Your task to perform on an android device: clear history in the chrome app Image 0: 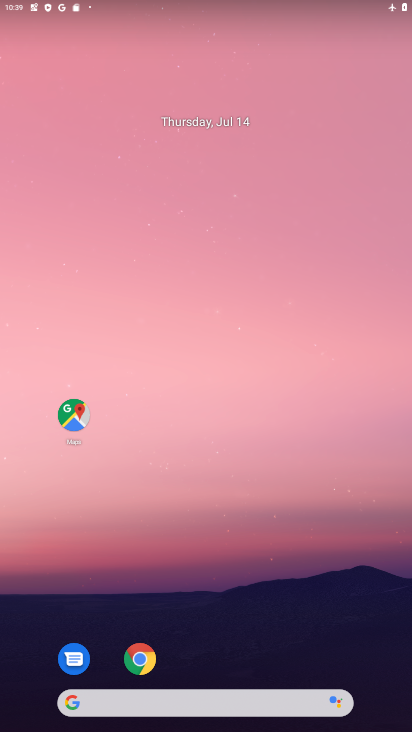
Step 0: drag from (280, 484) to (284, 125)
Your task to perform on an android device: clear history in the chrome app Image 1: 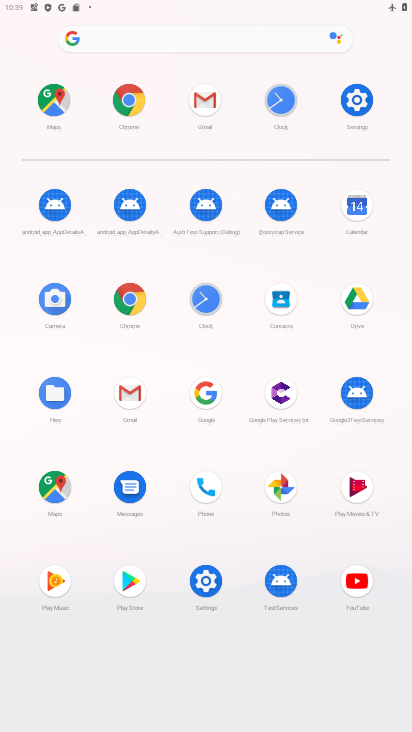
Step 1: click (127, 301)
Your task to perform on an android device: clear history in the chrome app Image 2: 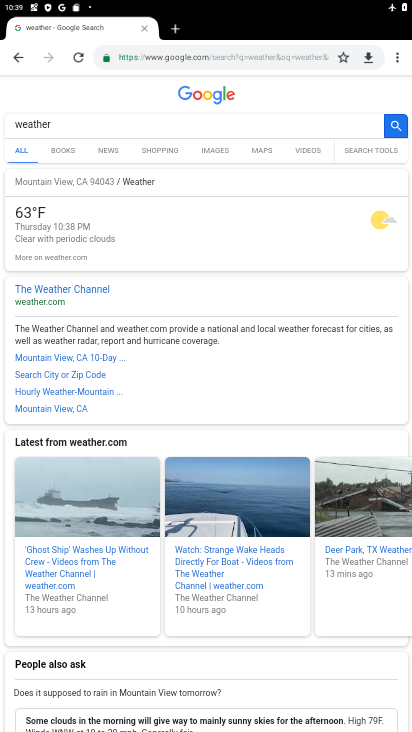
Step 2: drag from (402, 52) to (287, 178)
Your task to perform on an android device: clear history in the chrome app Image 3: 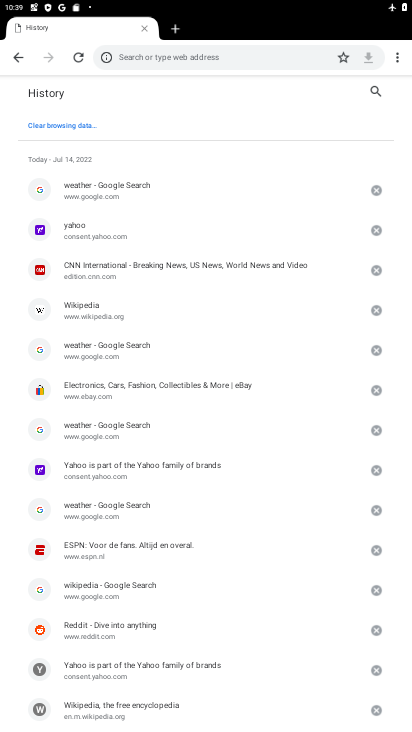
Step 3: click (81, 125)
Your task to perform on an android device: clear history in the chrome app Image 4: 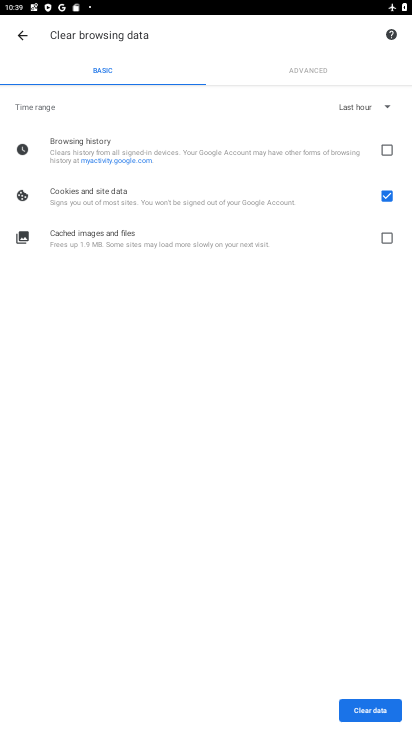
Step 4: click (394, 143)
Your task to perform on an android device: clear history in the chrome app Image 5: 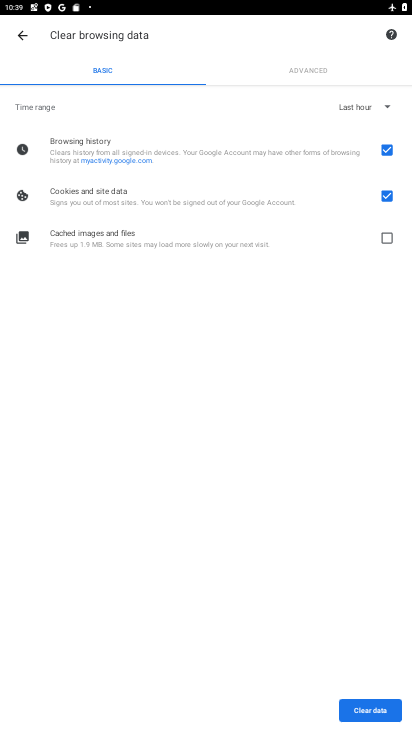
Step 5: click (384, 236)
Your task to perform on an android device: clear history in the chrome app Image 6: 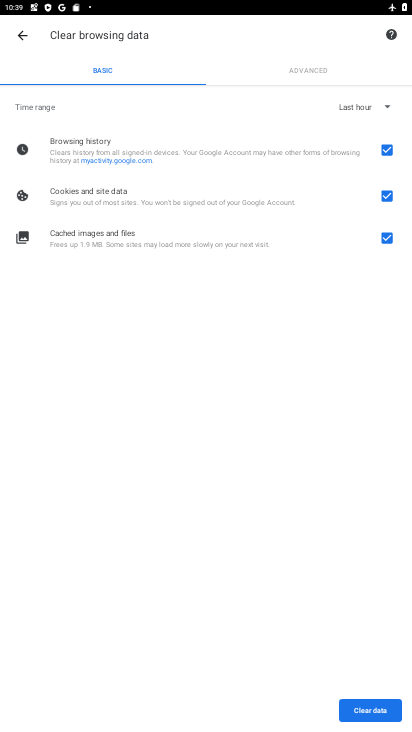
Step 6: click (366, 109)
Your task to perform on an android device: clear history in the chrome app Image 7: 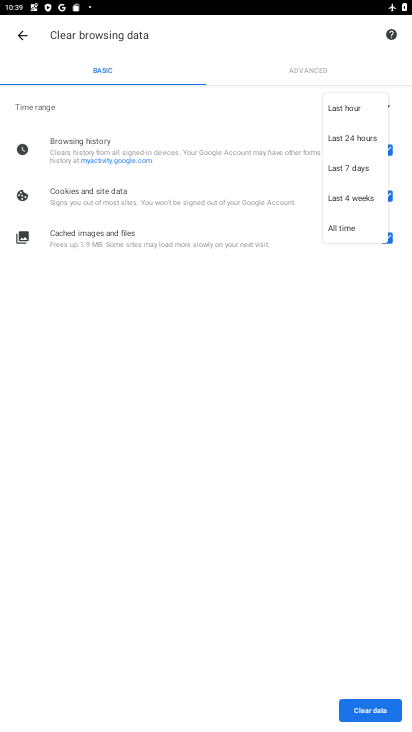
Step 7: click (344, 227)
Your task to perform on an android device: clear history in the chrome app Image 8: 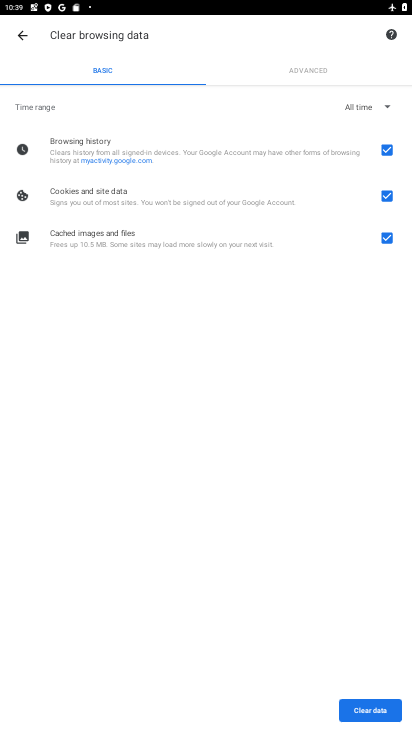
Step 8: click (376, 709)
Your task to perform on an android device: clear history in the chrome app Image 9: 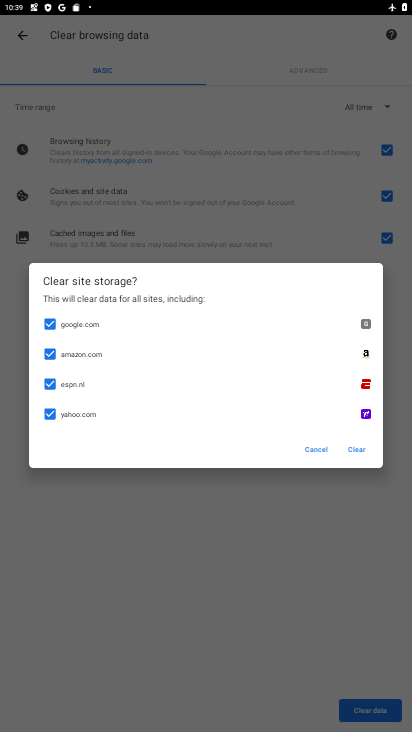
Step 9: click (357, 447)
Your task to perform on an android device: clear history in the chrome app Image 10: 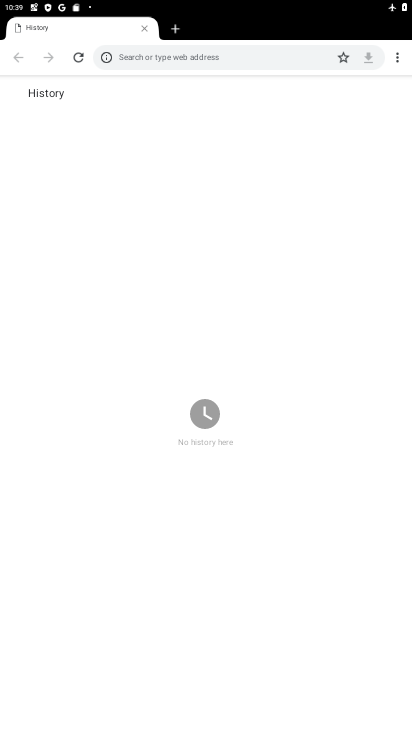
Step 10: task complete